Your task to perform on an android device: all mails in gmail Image 0: 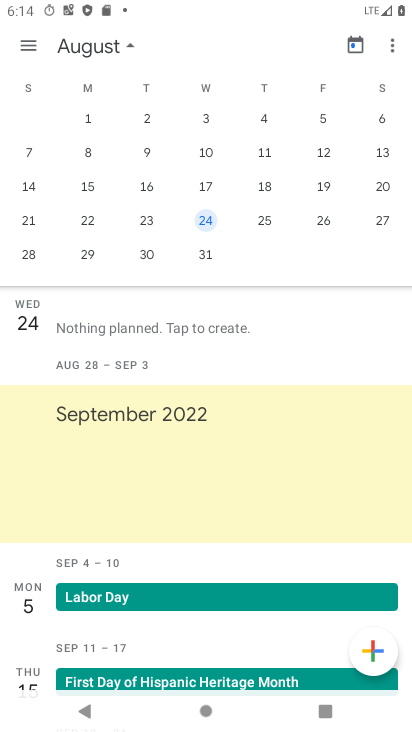
Step 0: press home button
Your task to perform on an android device: all mails in gmail Image 1: 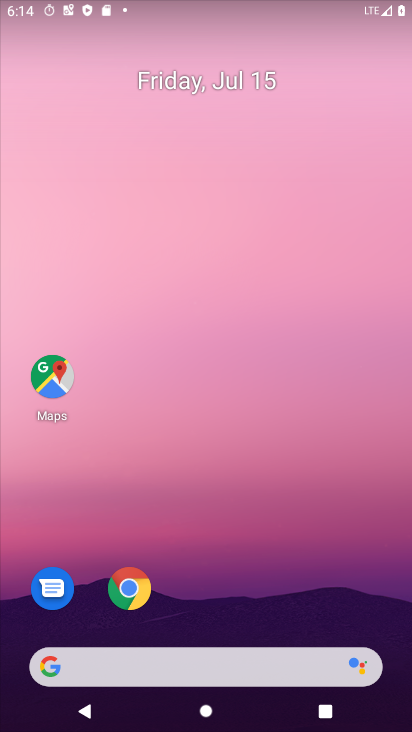
Step 1: drag from (326, 679) to (371, 77)
Your task to perform on an android device: all mails in gmail Image 2: 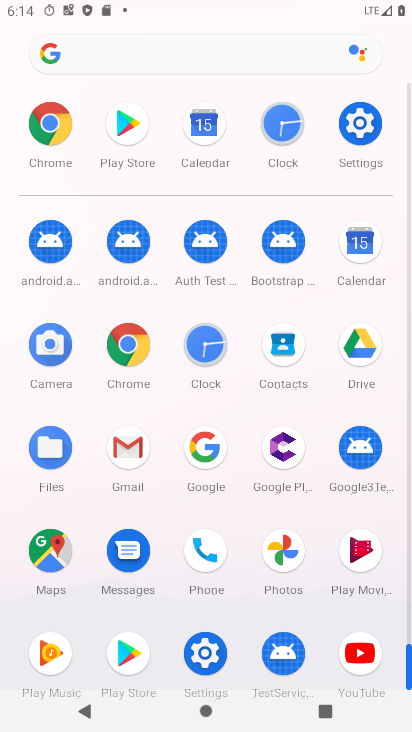
Step 2: click (137, 436)
Your task to perform on an android device: all mails in gmail Image 3: 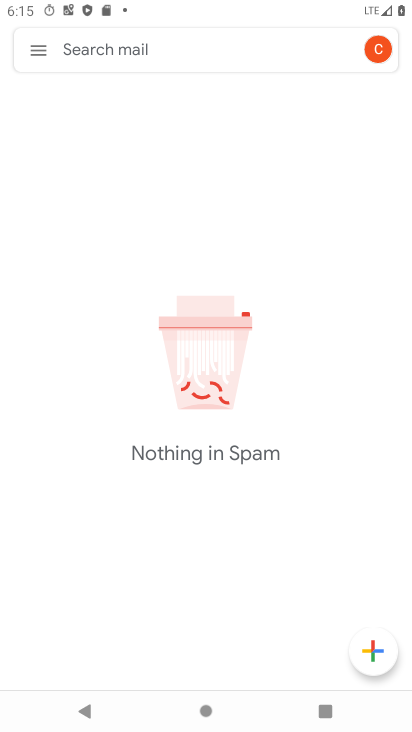
Step 3: click (44, 44)
Your task to perform on an android device: all mails in gmail Image 4: 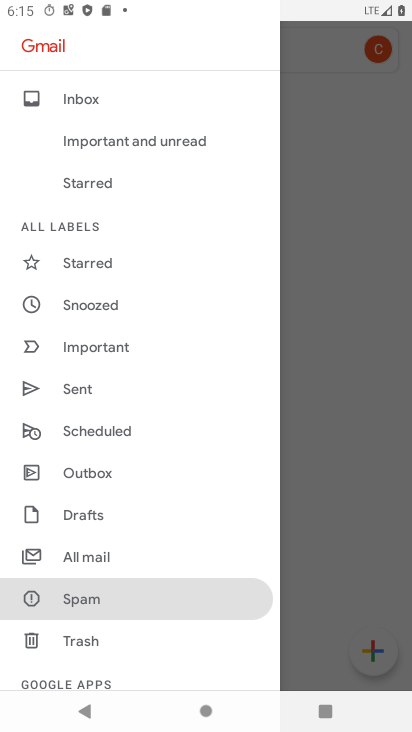
Step 4: drag from (105, 604) to (139, 457)
Your task to perform on an android device: all mails in gmail Image 5: 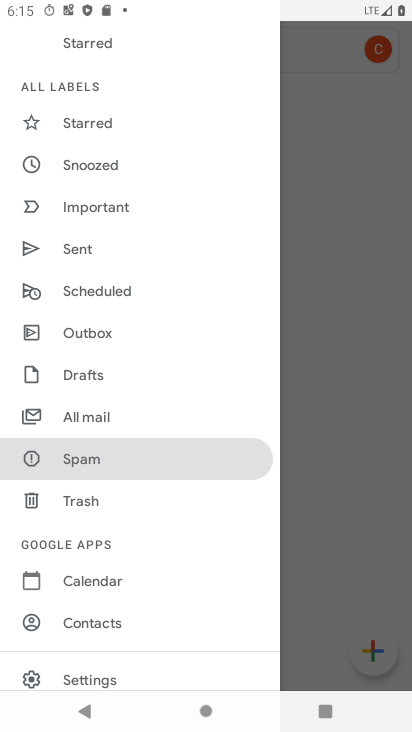
Step 5: click (98, 415)
Your task to perform on an android device: all mails in gmail Image 6: 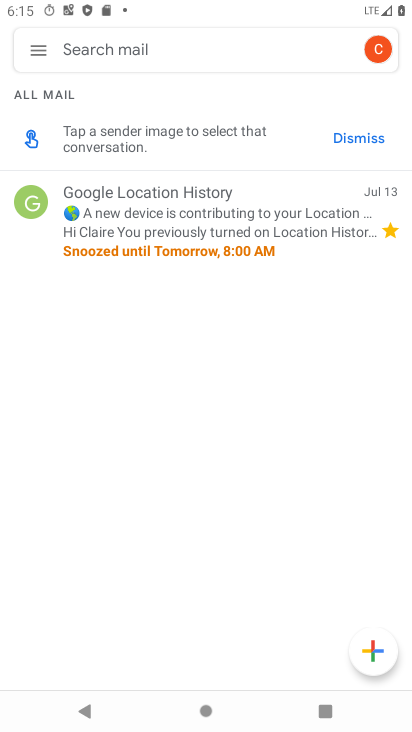
Step 6: task complete